Your task to perform on an android device: remove spam from my inbox in the gmail app Image 0: 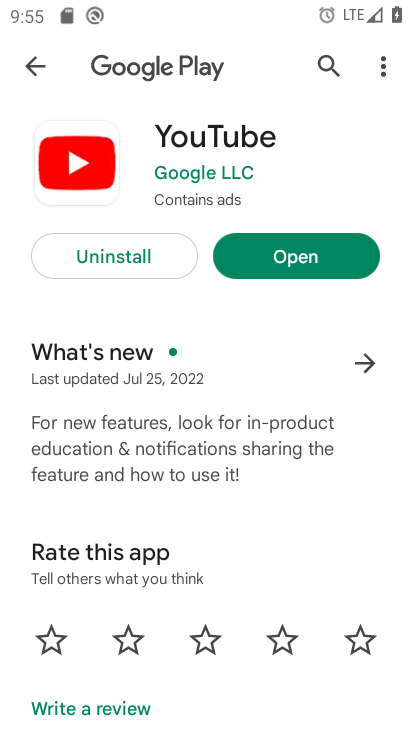
Step 0: press home button
Your task to perform on an android device: remove spam from my inbox in the gmail app Image 1: 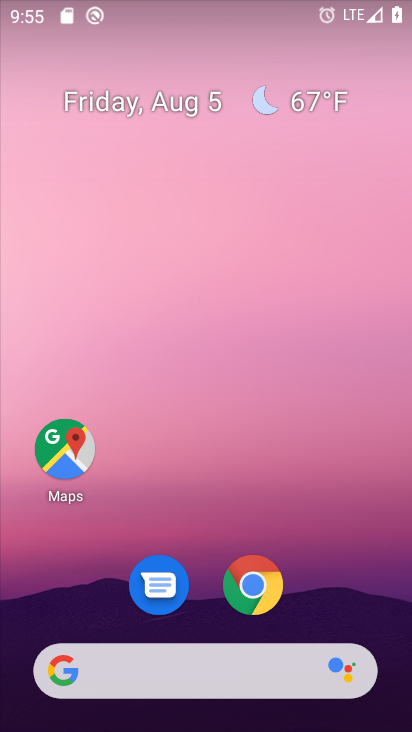
Step 1: drag from (212, 513) to (216, 0)
Your task to perform on an android device: remove spam from my inbox in the gmail app Image 2: 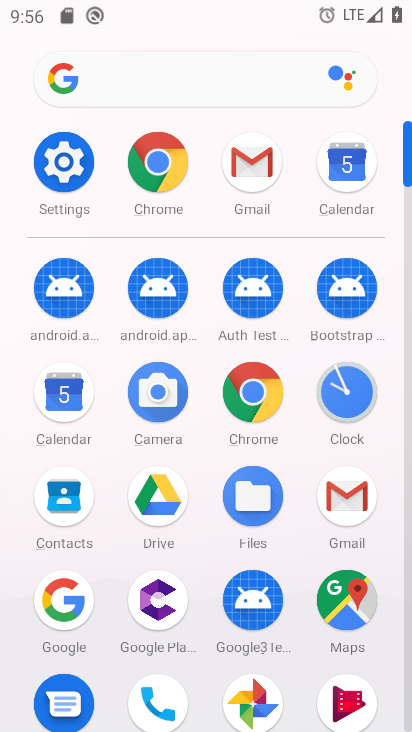
Step 2: click (259, 172)
Your task to perform on an android device: remove spam from my inbox in the gmail app Image 3: 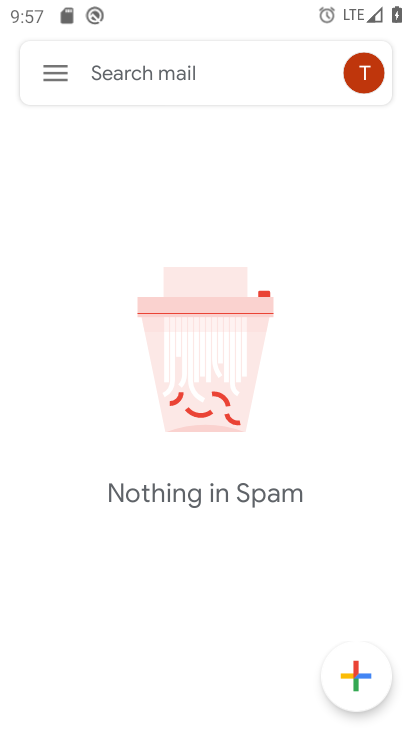
Step 3: task complete